Your task to perform on an android device: Open CNN.com Image 0: 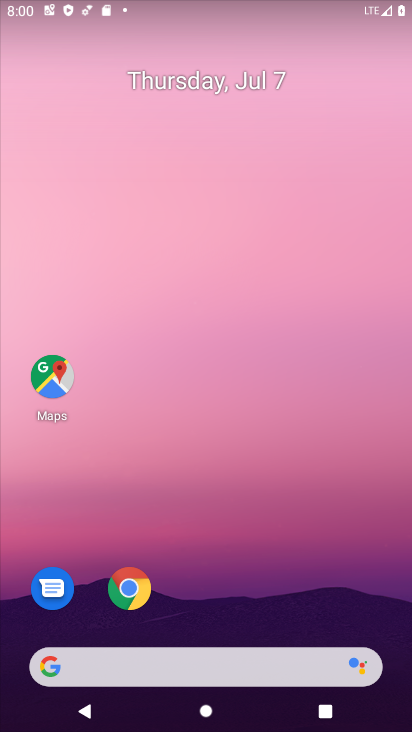
Step 0: drag from (280, 616) to (273, 152)
Your task to perform on an android device: Open CNN.com Image 1: 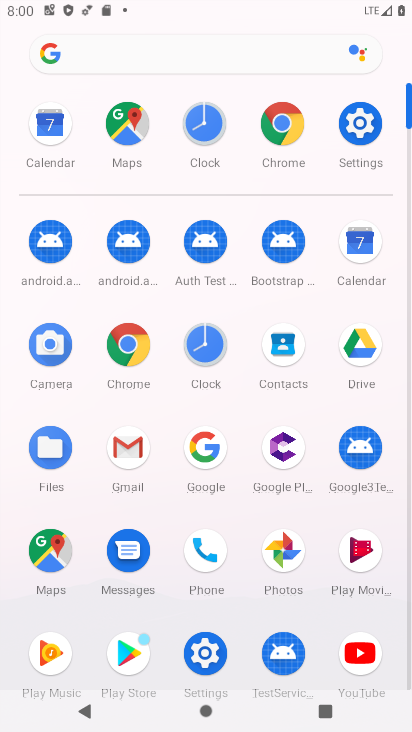
Step 1: click (295, 120)
Your task to perform on an android device: Open CNN.com Image 2: 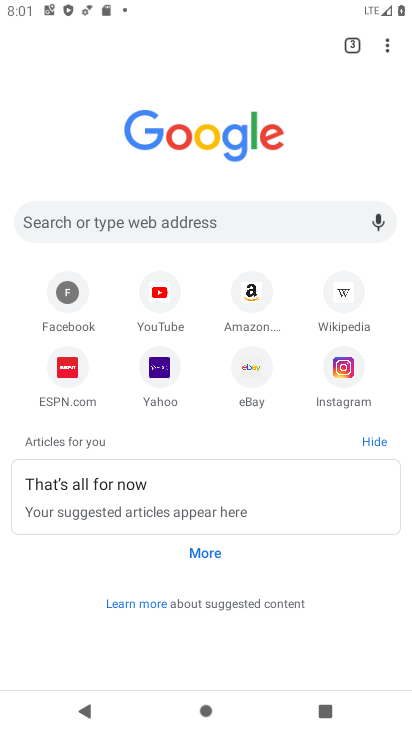
Step 2: click (153, 213)
Your task to perform on an android device: Open CNN.com Image 3: 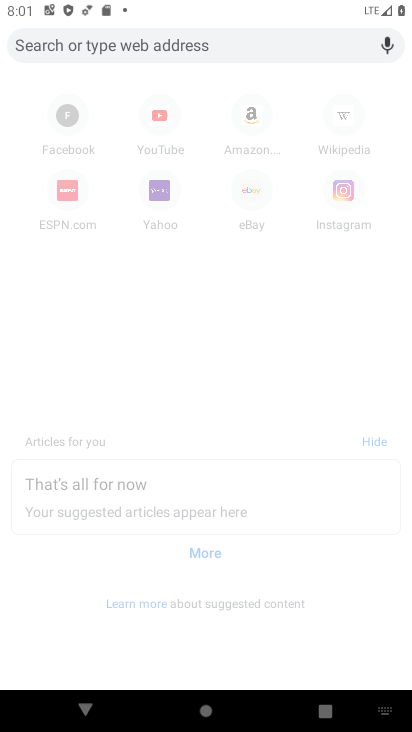
Step 3: type "CNN.com "
Your task to perform on an android device: Open CNN.com Image 4: 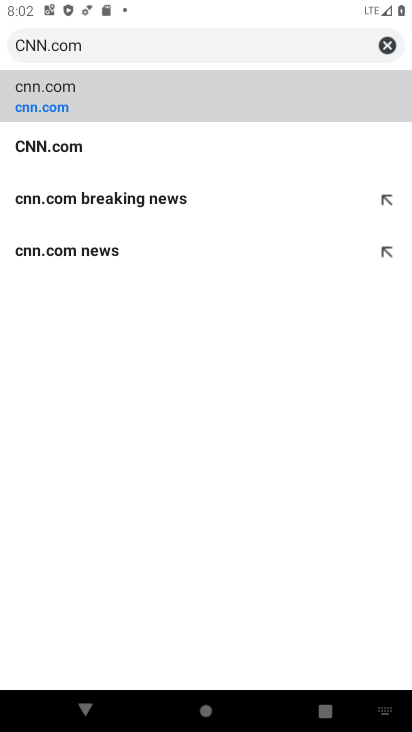
Step 4: click (161, 74)
Your task to perform on an android device: Open CNN.com Image 5: 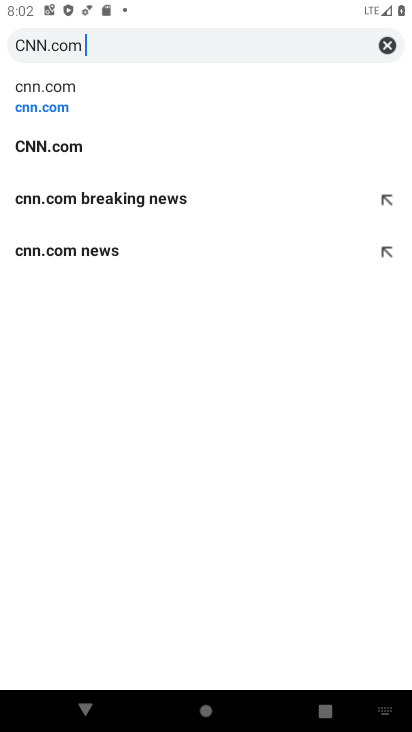
Step 5: click (44, 80)
Your task to perform on an android device: Open CNN.com Image 6: 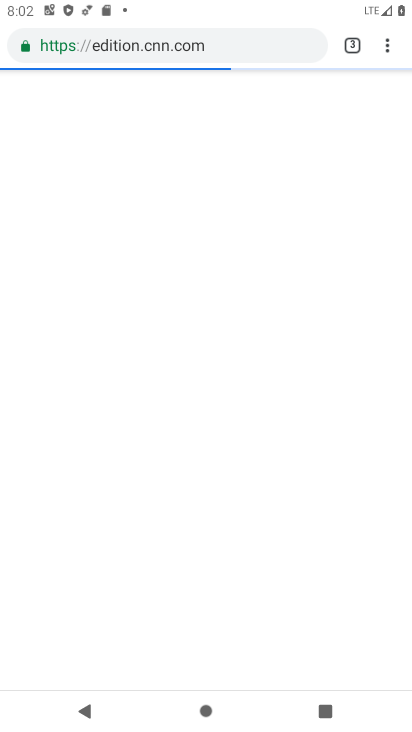
Step 6: task complete